Your task to perform on an android device: Add dell alienware to the cart on walmart, then select checkout. Image 0: 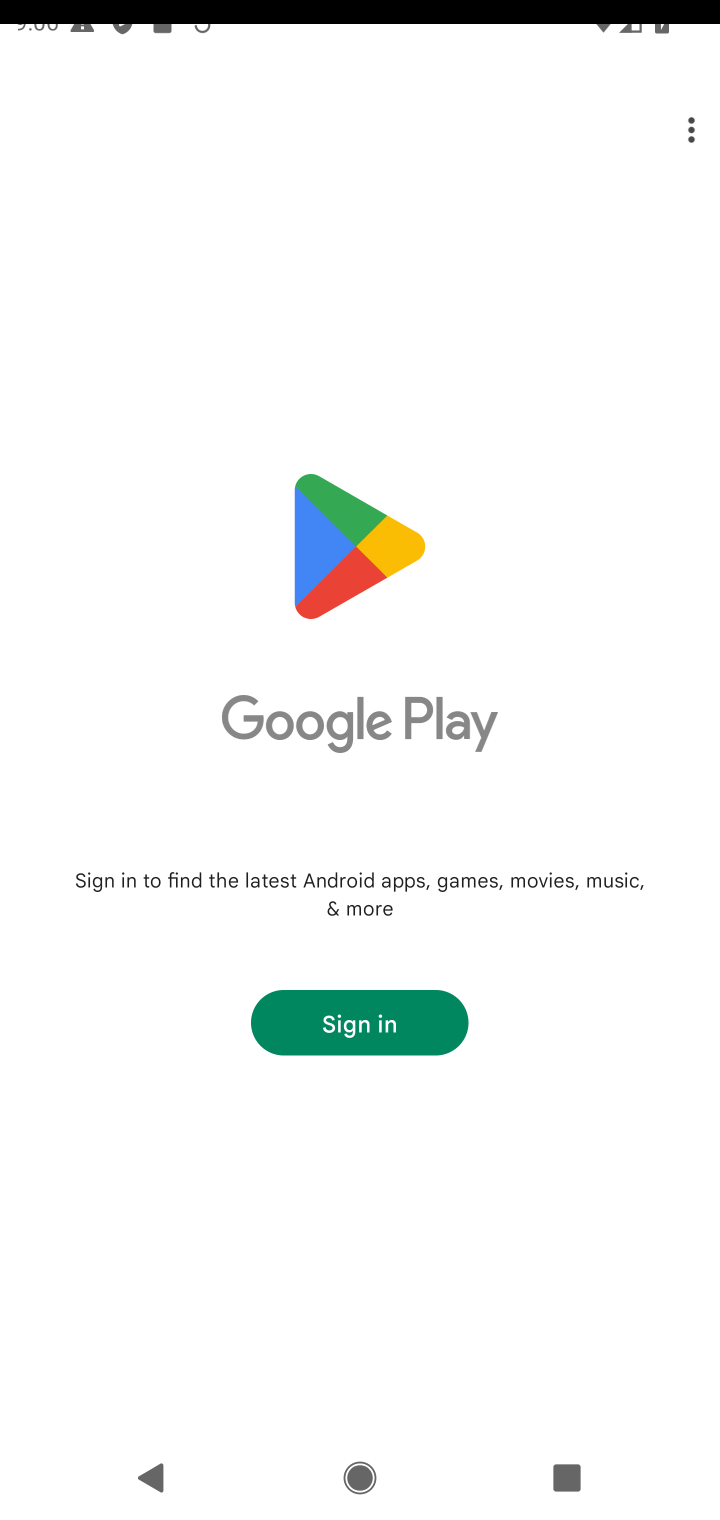
Step 0: press home button
Your task to perform on an android device: Add dell alienware to the cart on walmart, then select checkout. Image 1: 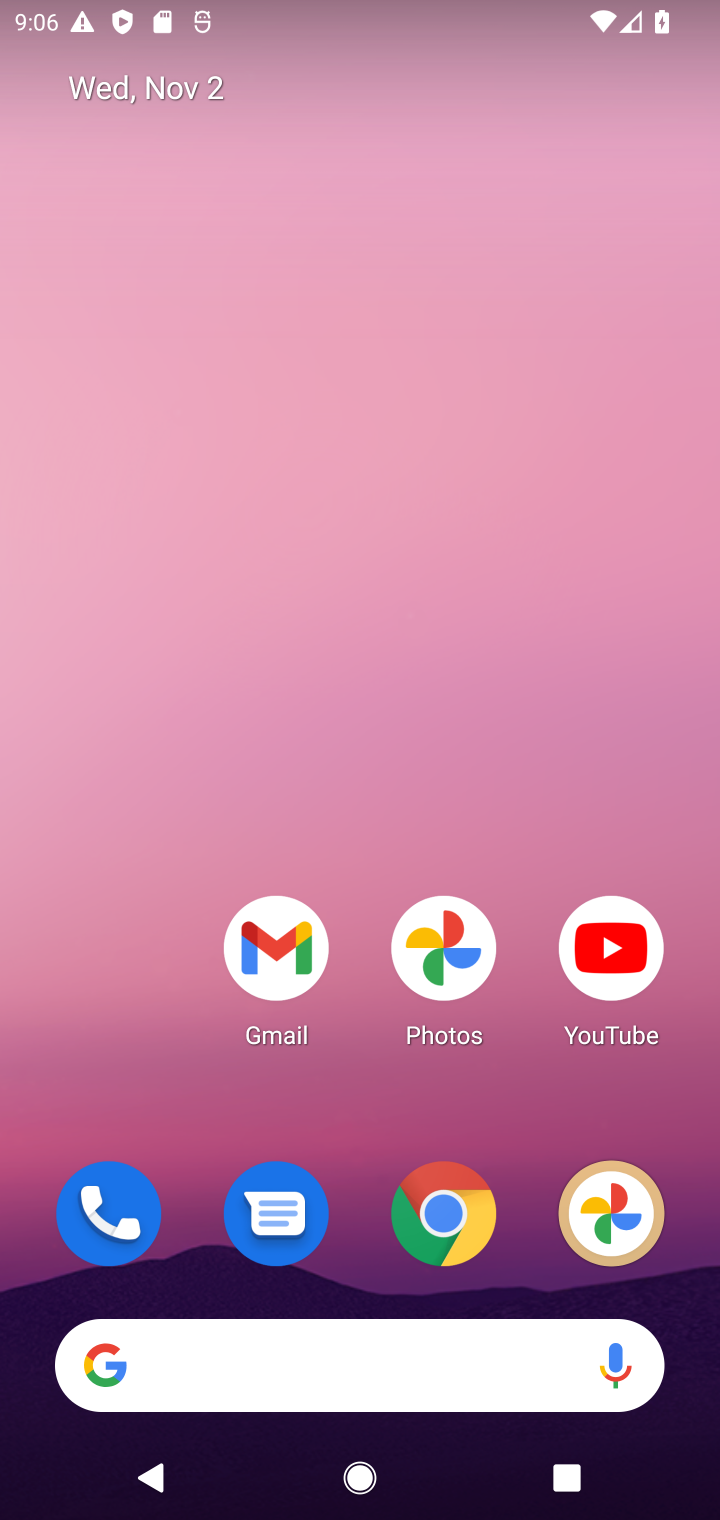
Step 1: click (437, 1238)
Your task to perform on an android device: Add dell alienware to the cart on walmart, then select checkout. Image 2: 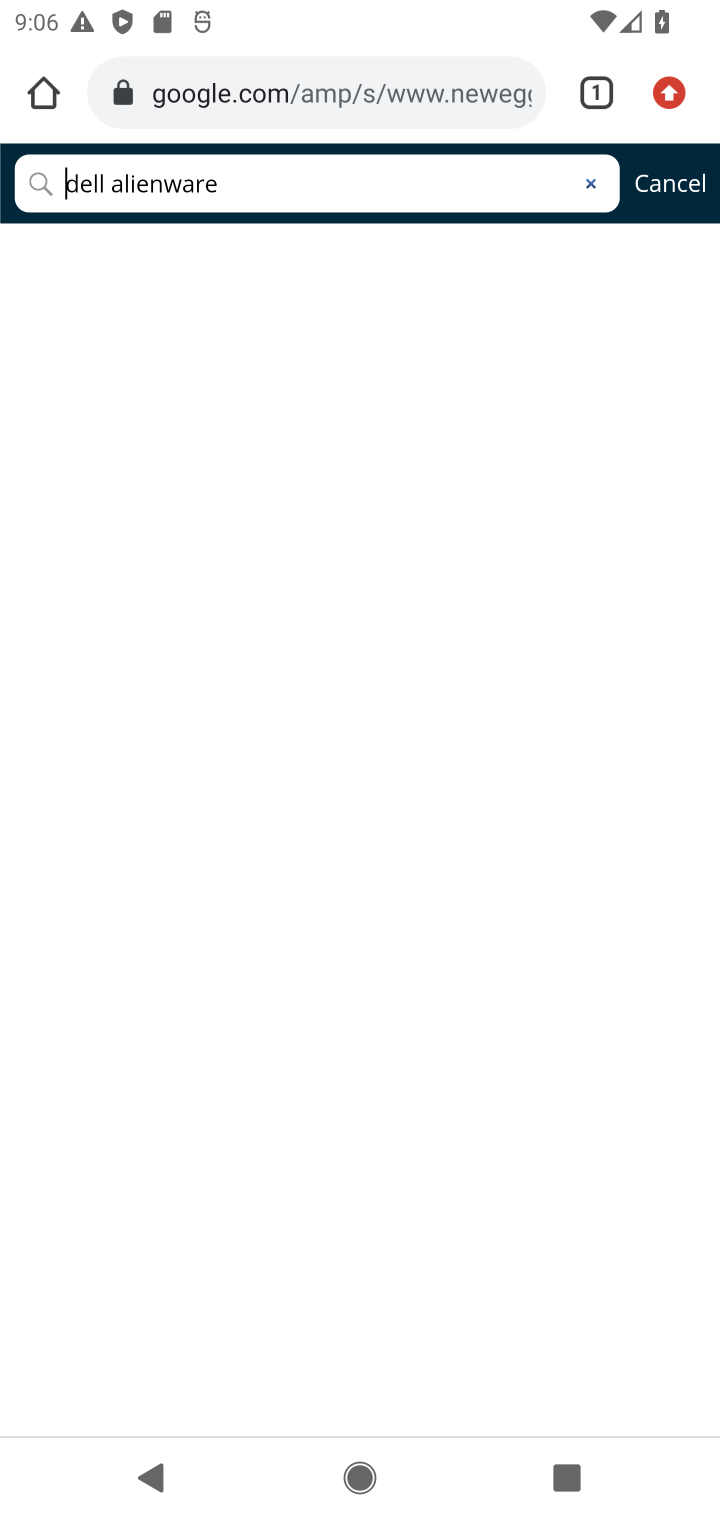
Step 2: click (293, 118)
Your task to perform on an android device: Add dell alienware to the cart on walmart, then select checkout. Image 3: 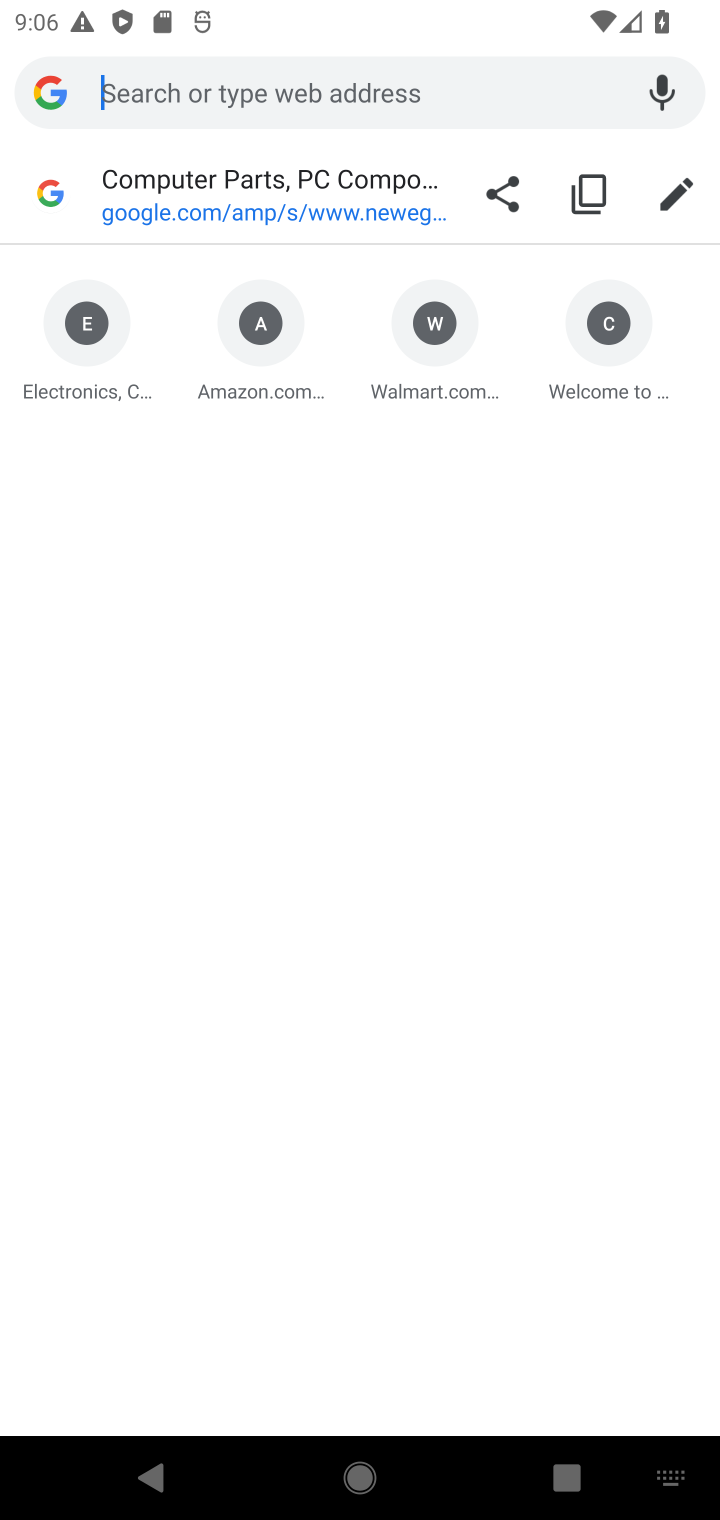
Step 3: click (424, 335)
Your task to perform on an android device: Add dell alienware to the cart on walmart, then select checkout. Image 4: 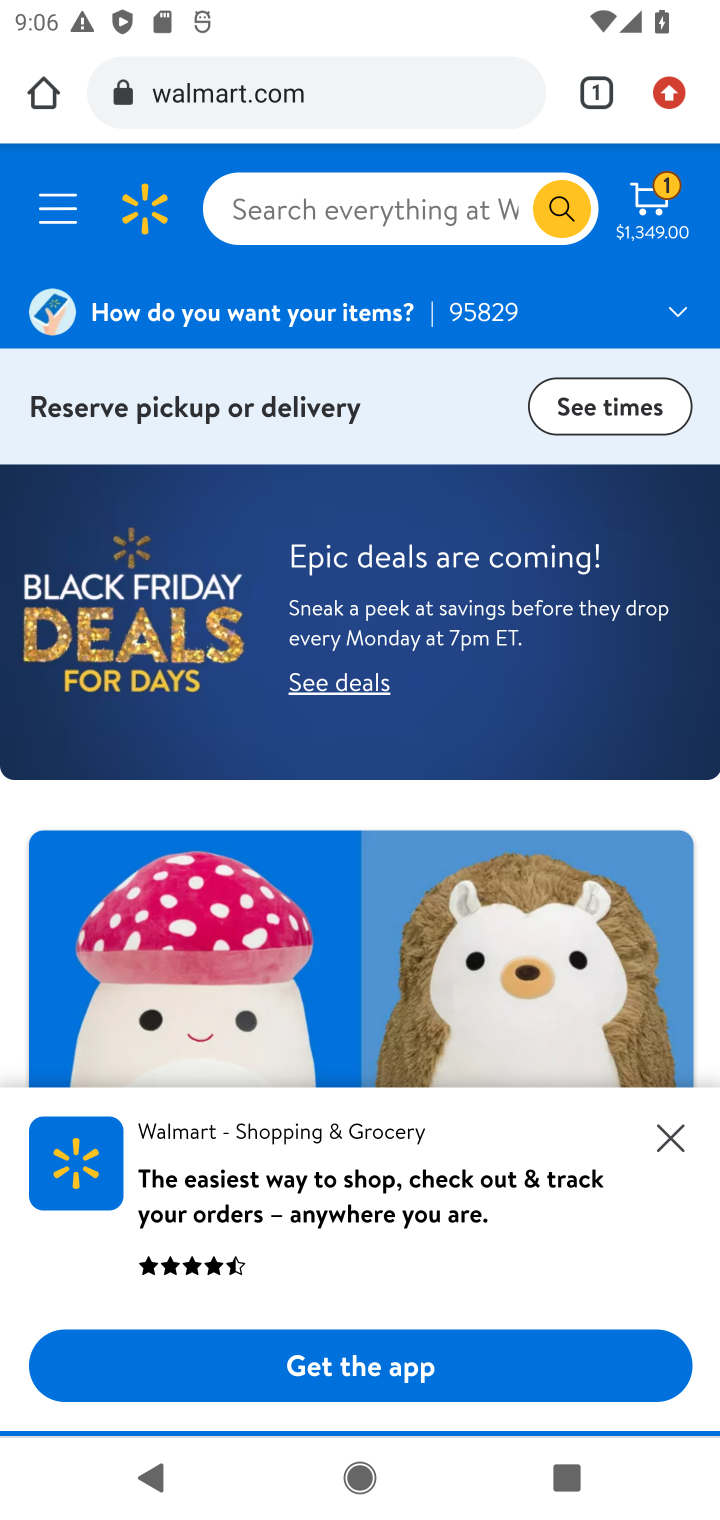
Step 4: click (355, 213)
Your task to perform on an android device: Add dell alienware to the cart on walmart, then select checkout. Image 5: 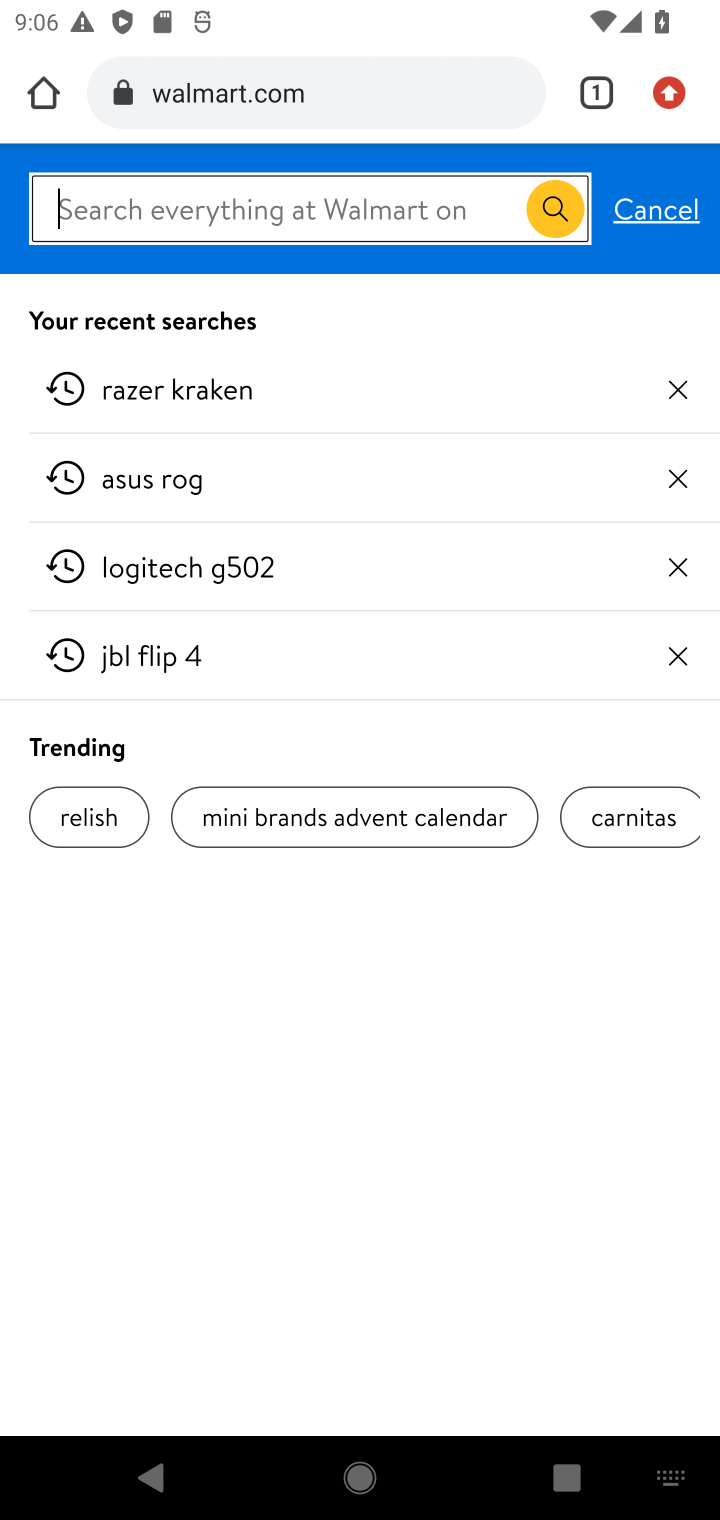
Step 5: type "dell alienware"
Your task to perform on an android device: Add dell alienware to the cart on walmart, then select checkout. Image 6: 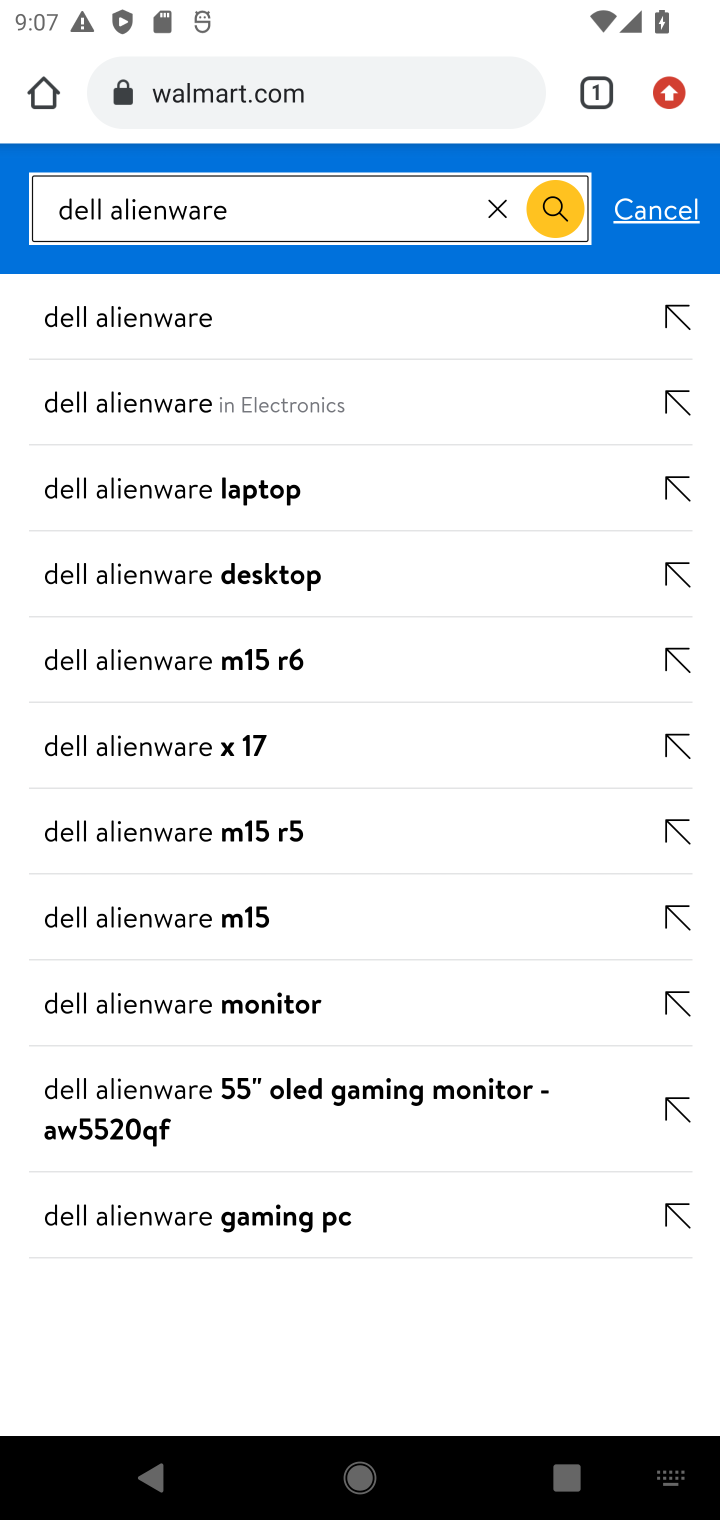
Step 6: click (138, 319)
Your task to perform on an android device: Add dell alienware to the cart on walmart, then select checkout. Image 7: 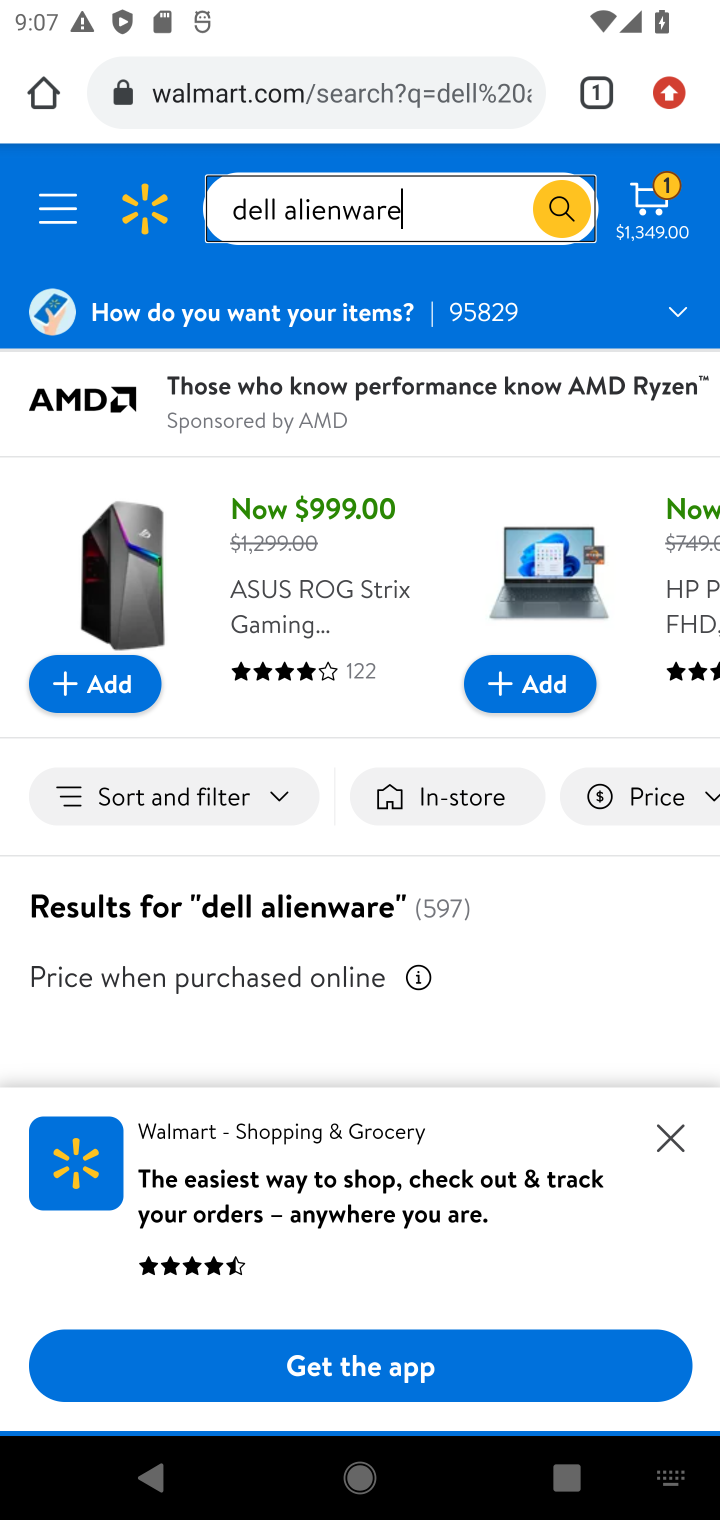
Step 7: drag from (406, 963) to (408, 526)
Your task to perform on an android device: Add dell alienware to the cart on walmart, then select checkout. Image 8: 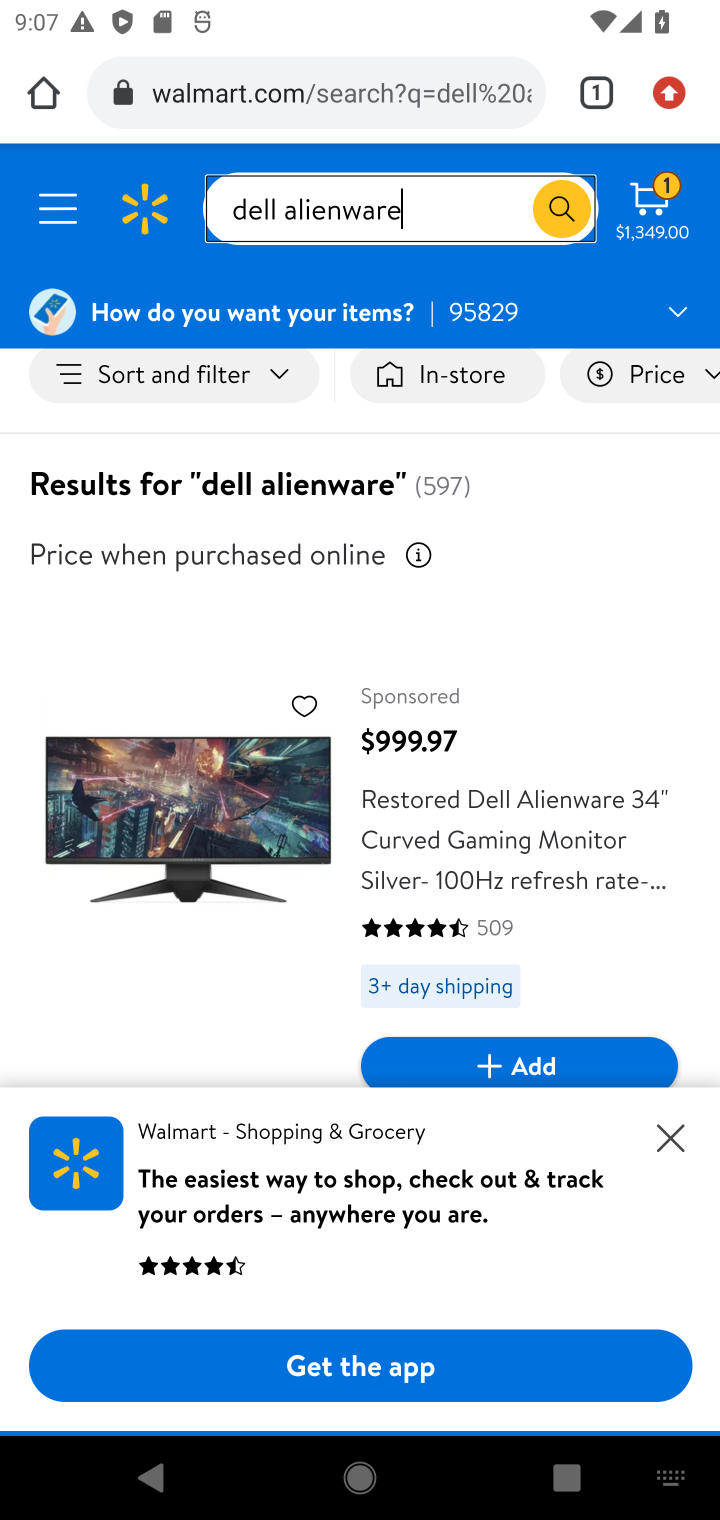
Step 8: drag from (311, 964) to (364, 661)
Your task to perform on an android device: Add dell alienware to the cart on walmart, then select checkout. Image 9: 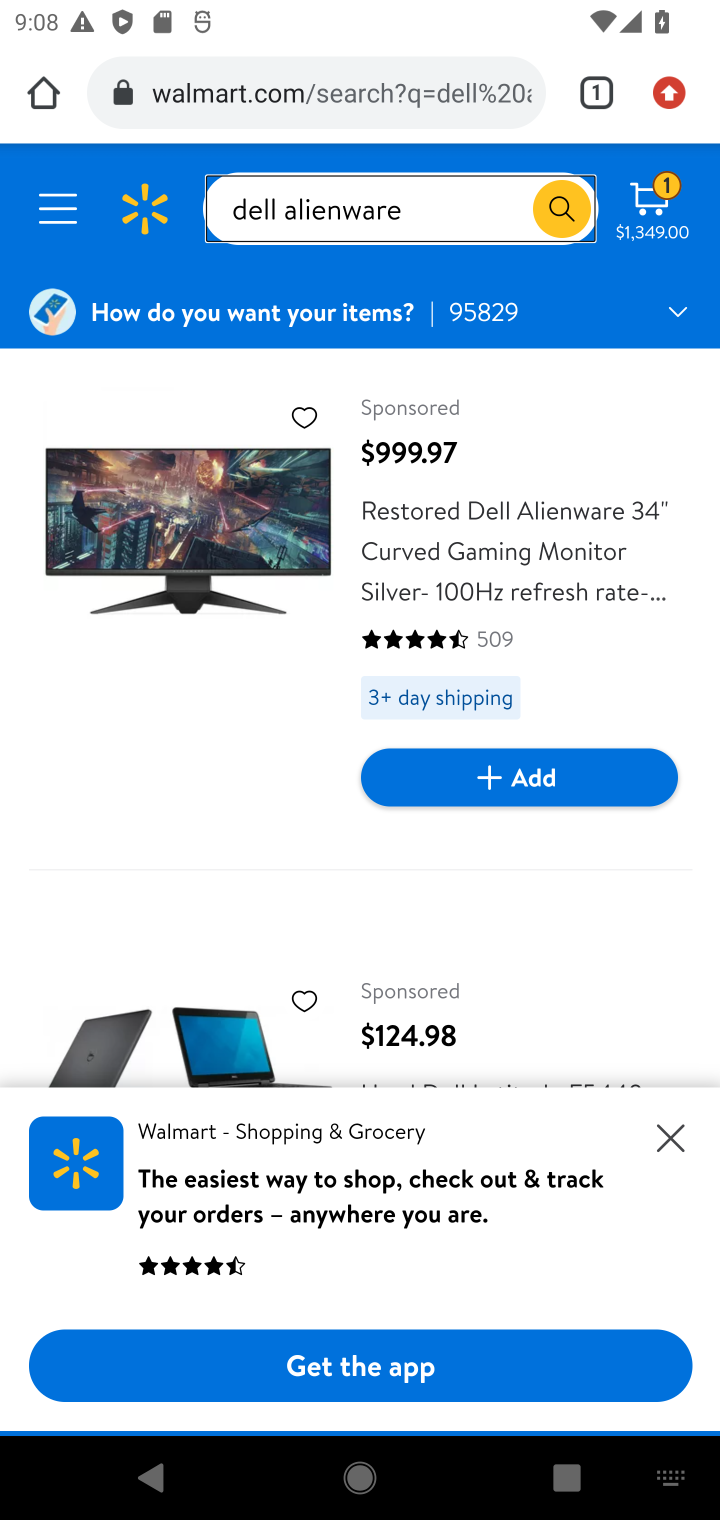
Step 9: click (550, 781)
Your task to perform on an android device: Add dell alienware to the cart on walmart, then select checkout. Image 10: 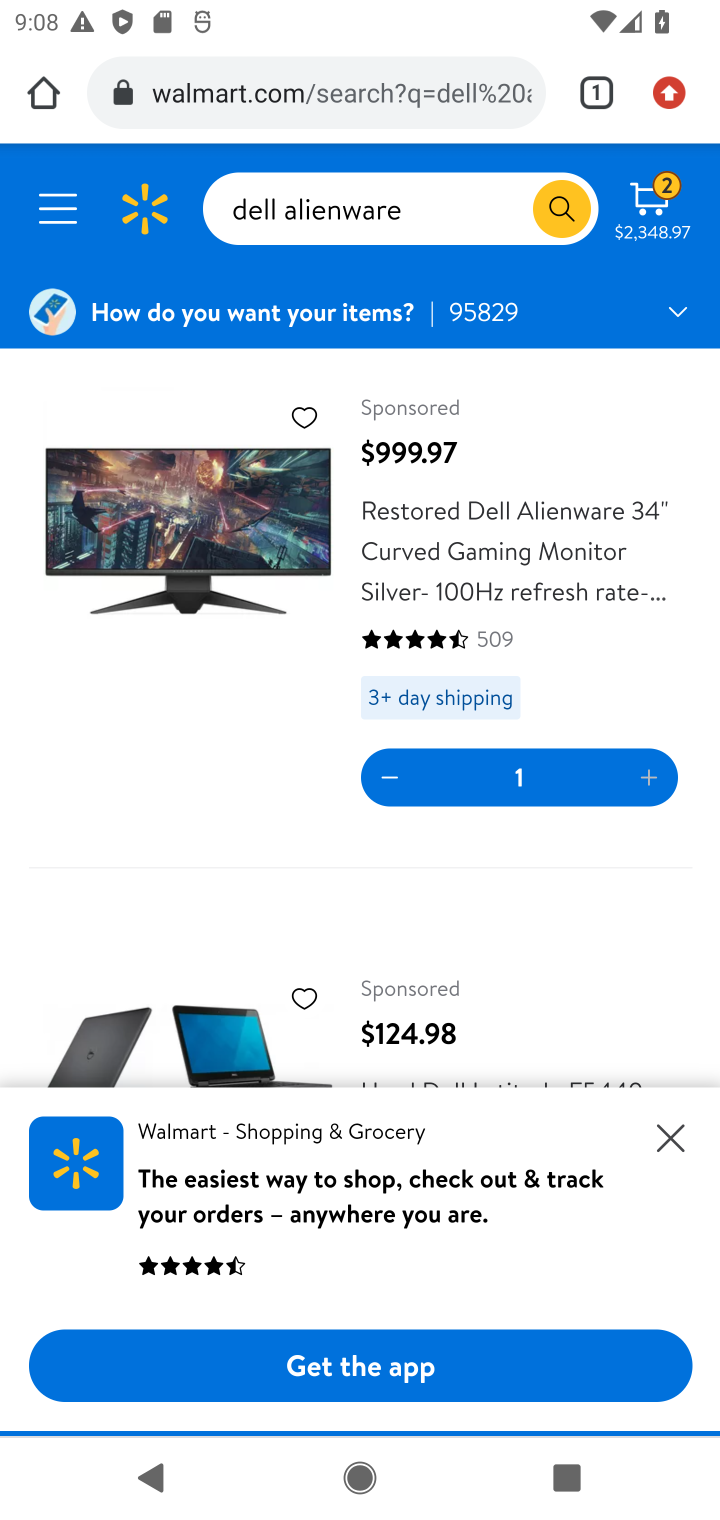
Step 10: click (648, 222)
Your task to perform on an android device: Add dell alienware to the cart on walmart, then select checkout. Image 11: 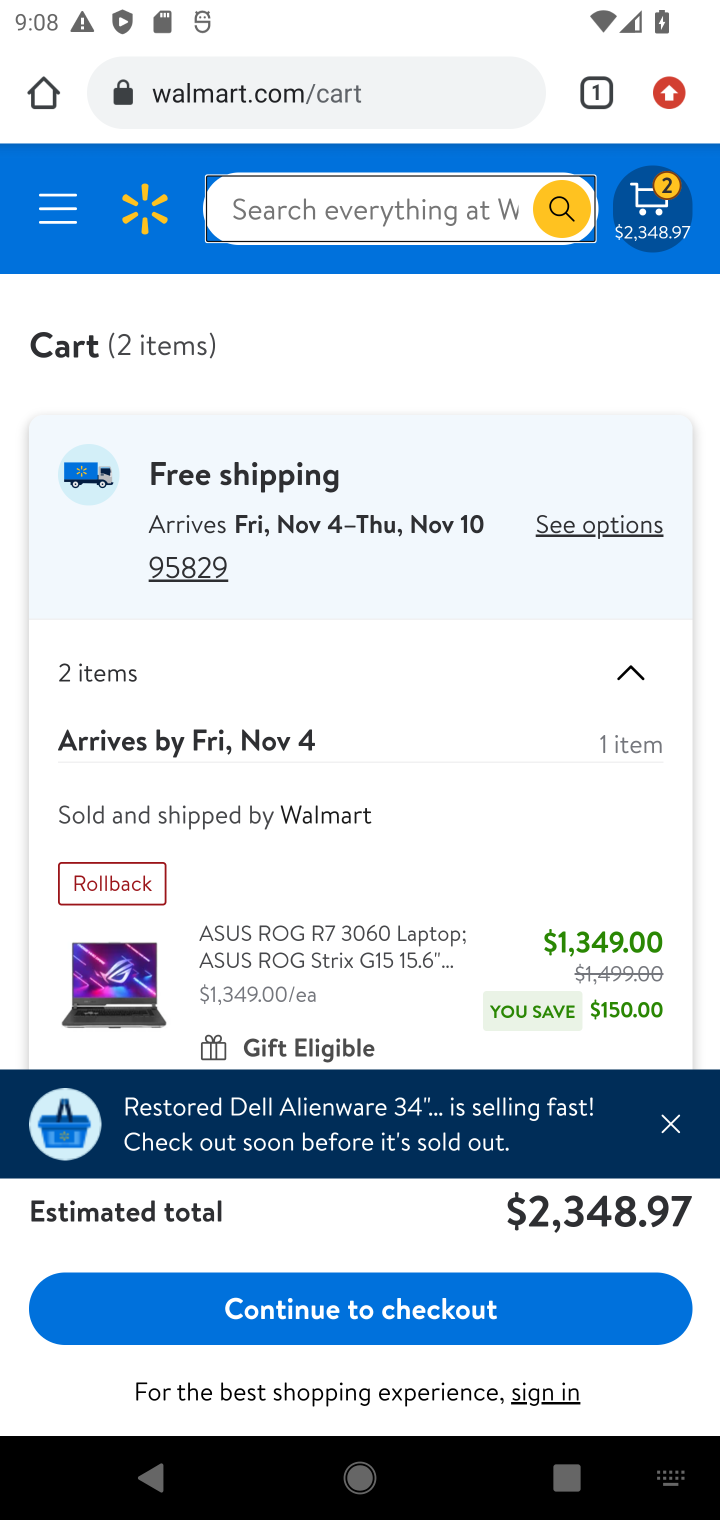
Step 11: click (349, 1316)
Your task to perform on an android device: Add dell alienware to the cart on walmart, then select checkout. Image 12: 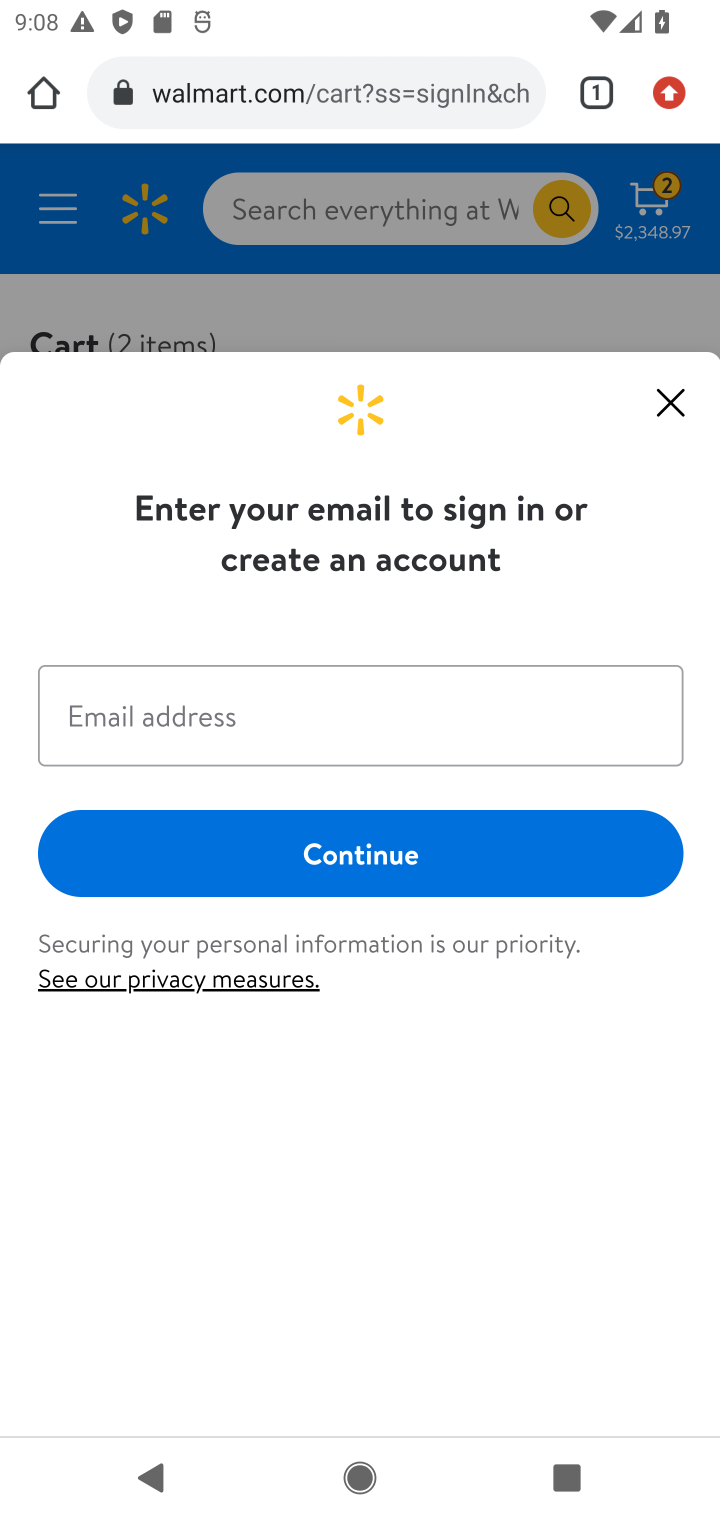
Step 12: task complete